Your task to perform on an android device: Go to Wikipedia Image 0: 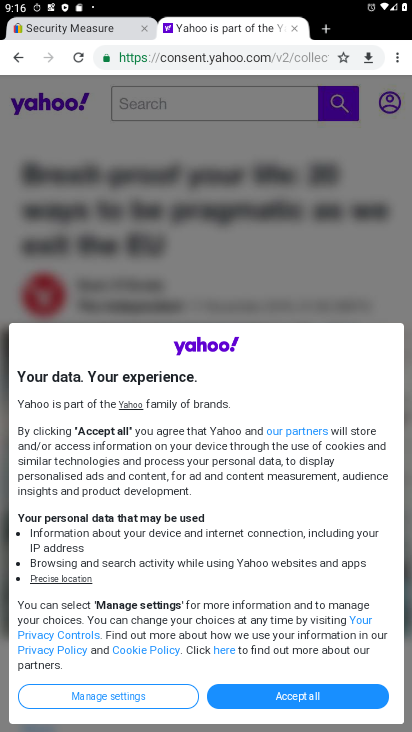
Step 0: press home button
Your task to perform on an android device: Go to Wikipedia Image 1: 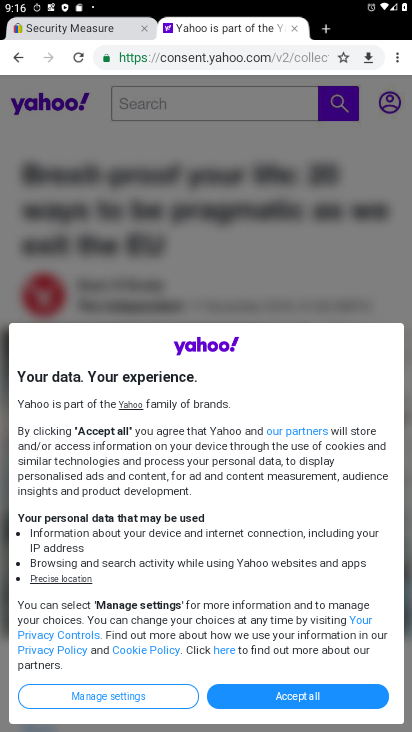
Step 1: press home button
Your task to perform on an android device: Go to Wikipedia Image 2: 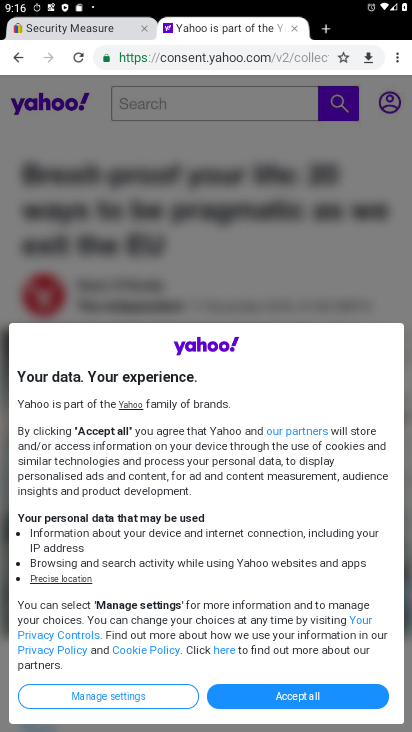
Step 2: click (240, 228)
Your task to perform on an android device: Go to Wikipedia Image 3: 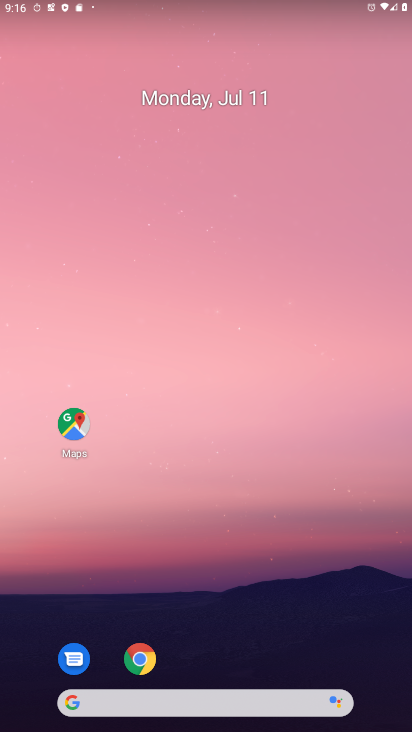
Step 3: drag from (204, 666) to (107, 14)
Your task to perform on an android device: Go to Wikipedia Image 4: 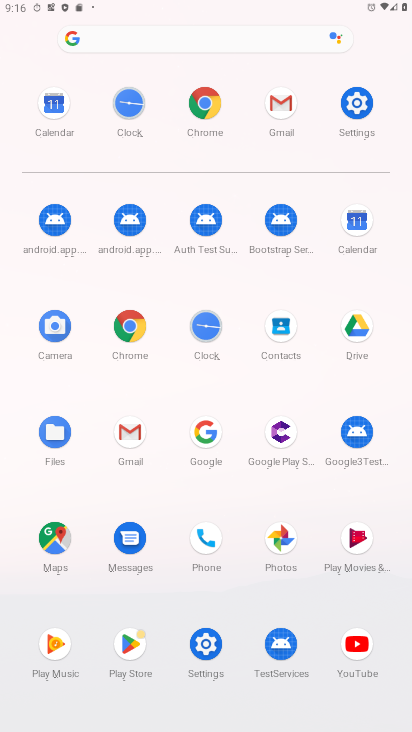
Step 4: drag from (225, 644) to (269, 299)
Your task to perform on an android device: Go to Wikipedia Image 5: 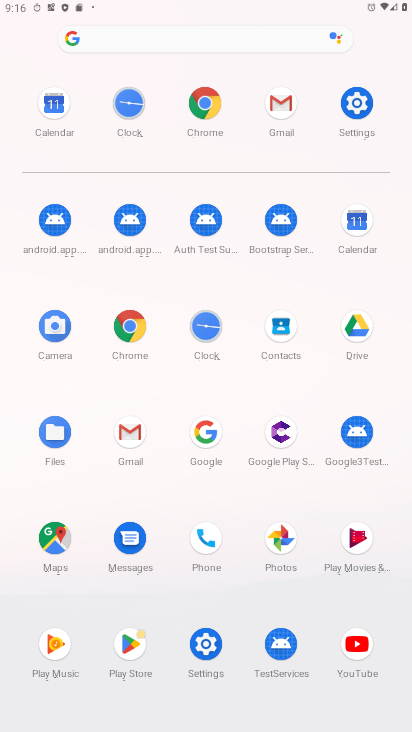
Step 5: click (148, 30)
Your task to perform on an android device: Go to Wikipedia Image 6: 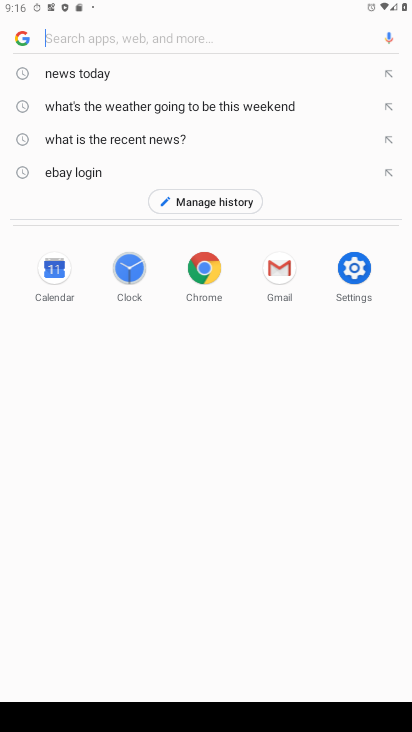
Step 6: type "Wikipedia"
Your task to perform on an android device: Go to Wikipedia Image 7: 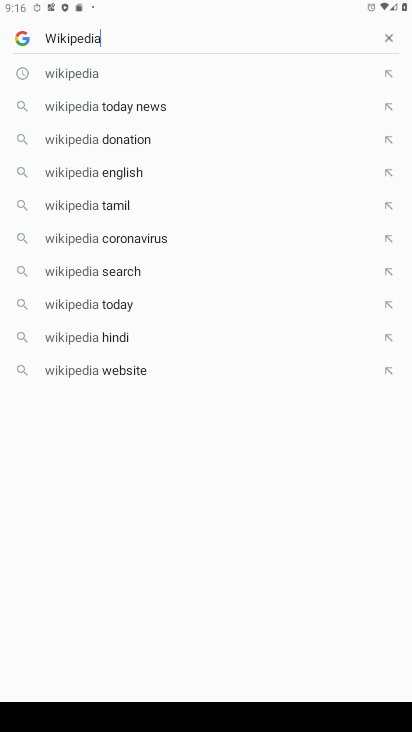
Step 7: click (100, 68)
Your task to perform on an android device: Go to Wikipedia Image 8: 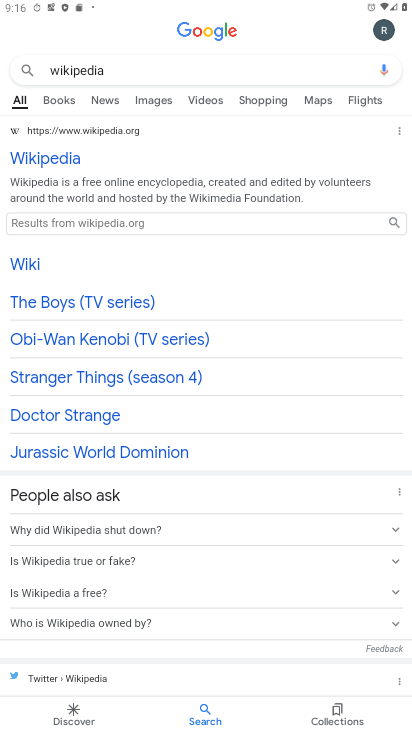
Step 8: drag from (233, 596) to (283, 248)
Your task to perform on an android device: Go to Wikipedia Image 9: 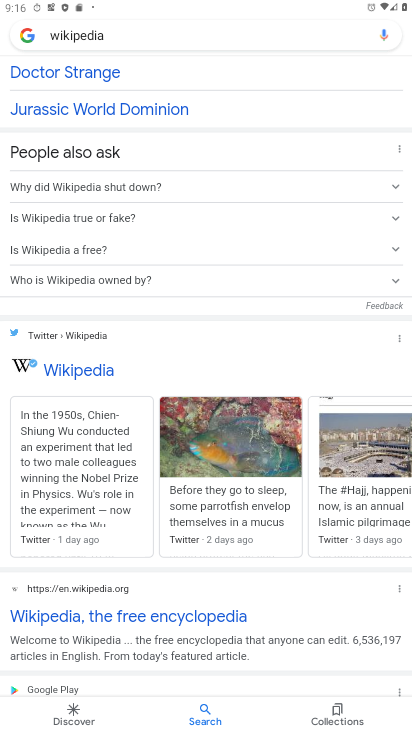
Step 9: drag from (205, 179) to (319, 719)
Your task to perform on an android device: Go to Wikipedia Image 10: 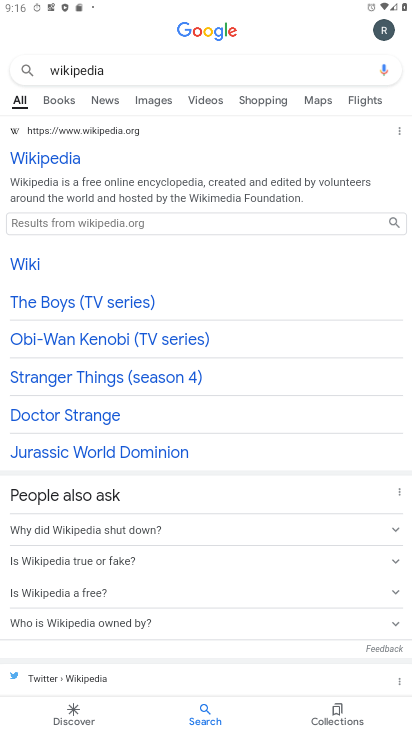
Step 10: click (49, 144)
Your task to perform on an android device: Go to Wikipedia Image 11: 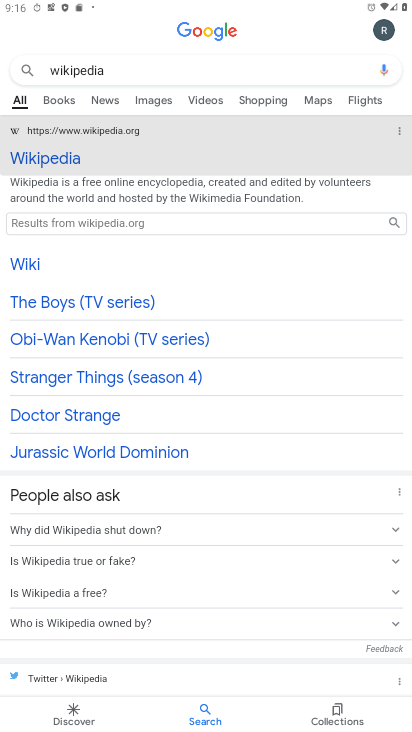
Step 11: click (49, 144)
Your task to perform on an android device: Go to Wikipedia Image 12: 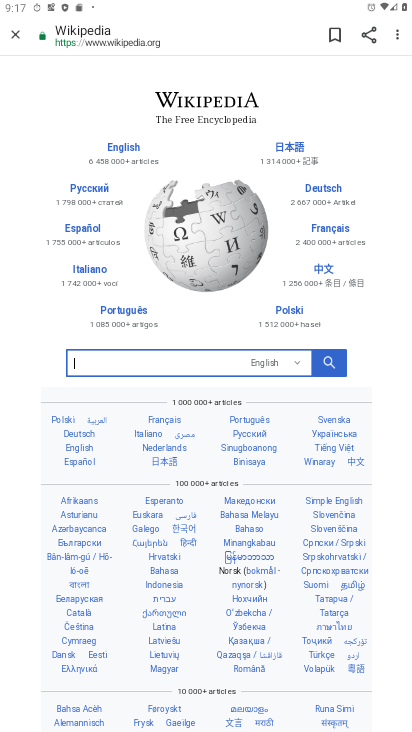
Step 12: task complete